Your task to perform on an android device: Go to internet settings Image 0: 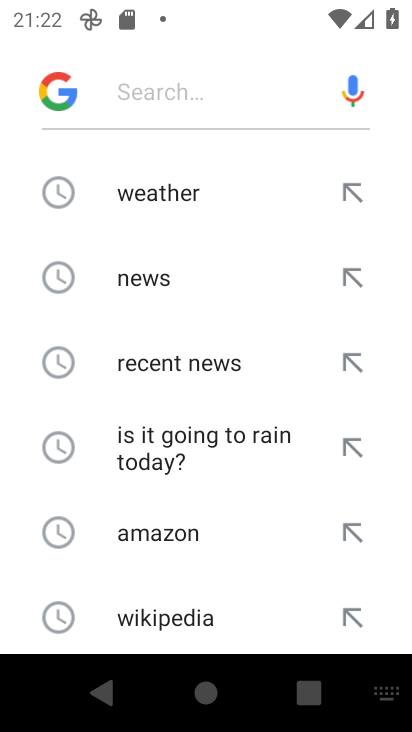
Step 0: press home button
Your task to perform on an android device: Go to internet settings Image 1: 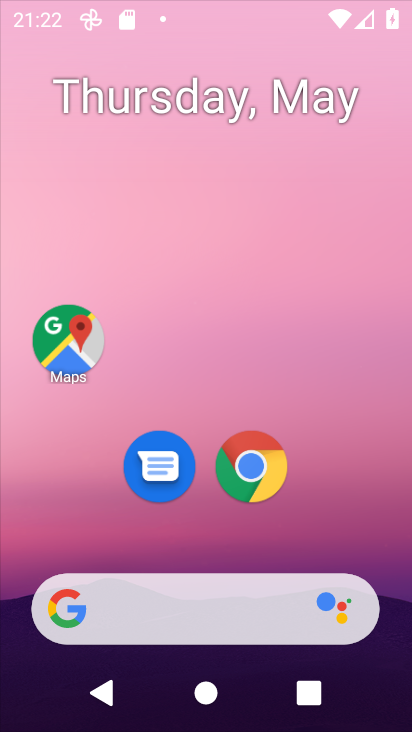
Step 1: press home button
Your task to perform on an android device: Go to internet settings Image 2: 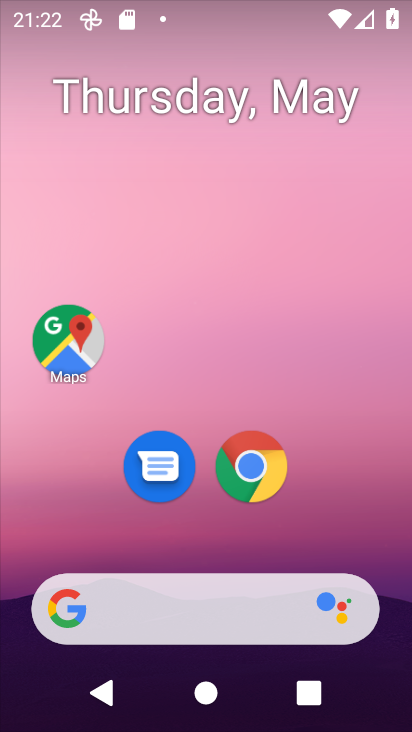
Step 2: drag from (335, 529) to (310, 54)
Your task to perform on an android device: Go to internet settings Image 3: 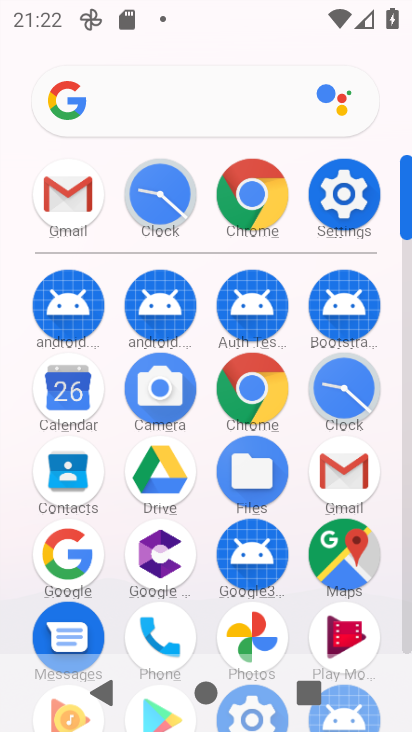
Step 3: click (339, 219)
Your task to perform on an android device: Go to internet settings Image 4: 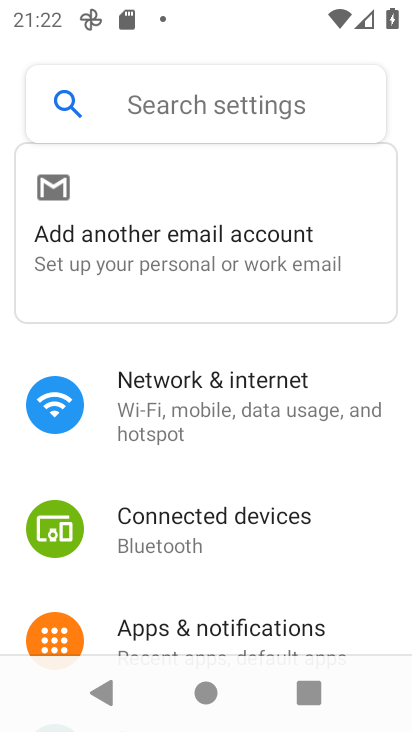
Step 4: click (209, 419)
Your task to perform on an android device: Go to internet settings Image 5: 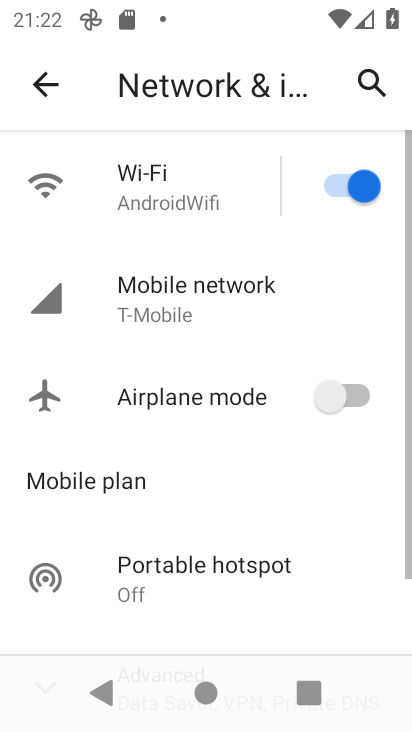
Step 5: task complete